Your task to perform on an android device: Open settings on Google Maps Image 0: 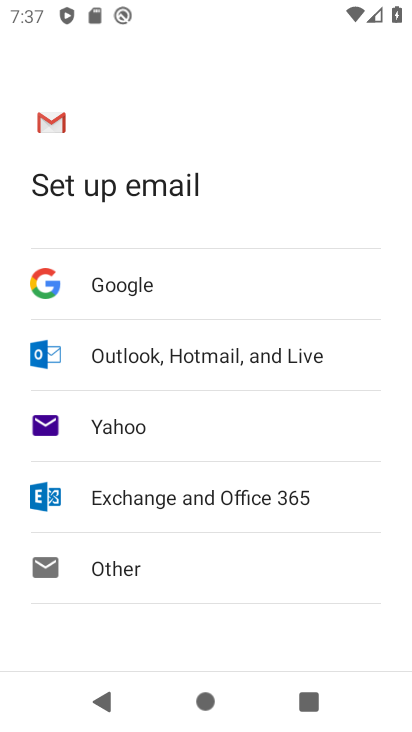
Step 0: press home button
Your task to perform on an android device: Open settings on Google Maps Image 1: 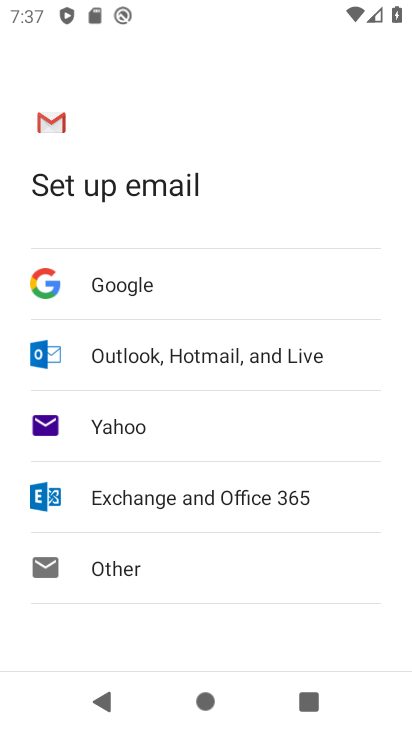
Step 1: press home button
Your task to perform on an android device: Open settings on Google Maps Image 2: 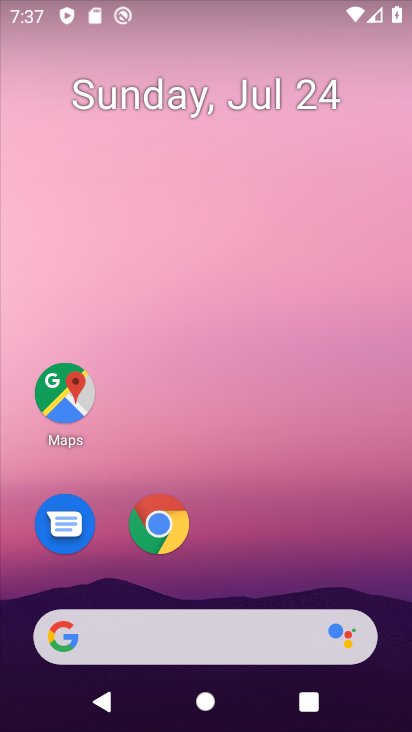
Step 2: click (68, 406)
Your task to perform on an android device: Open settings on Google Maps Image 3: 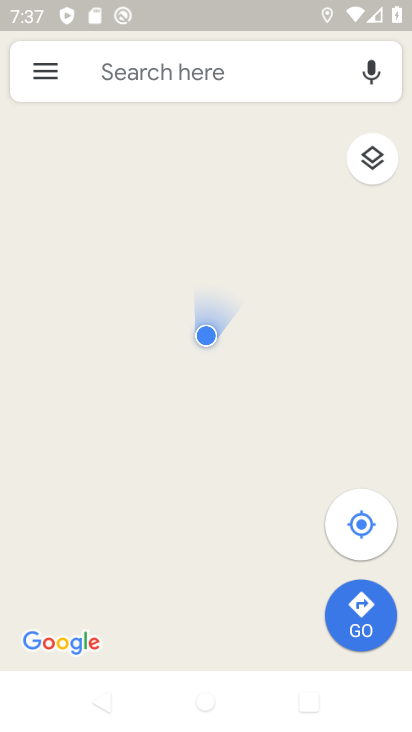
Step 3: click (43, 65)
Your task to perform on an android device: Open settings on Google Maps Image 4: 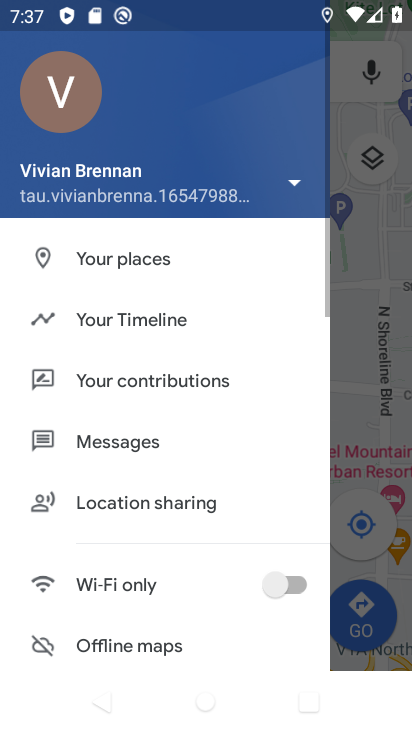
Step 4: drag from (175, 549) to (196, 40)
Your task to perform on an android device: Open settings on Google Maps Image 5: 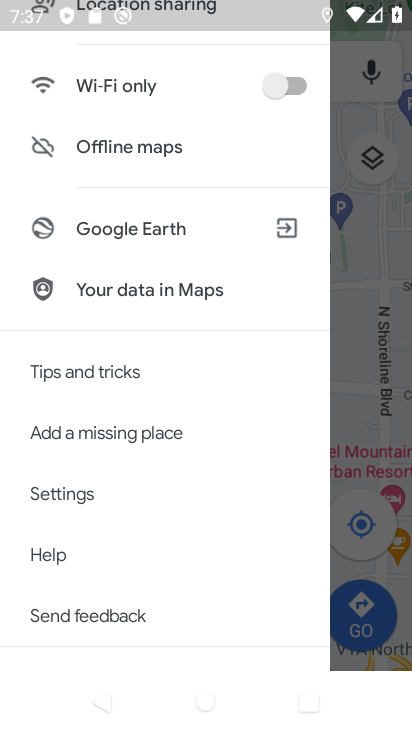
Step 5: click (85, 487)
Your task to perform on an android device: Open settings on Google Maps Image 6: 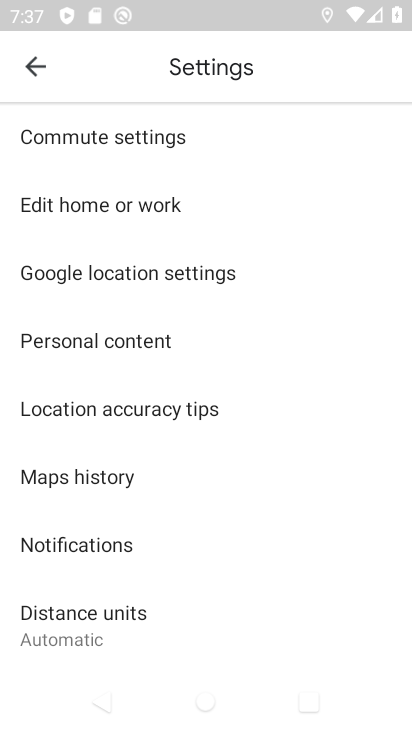
Step 6: task complete